Your task to perform on an android device: Go to ESPN.com Image 0: 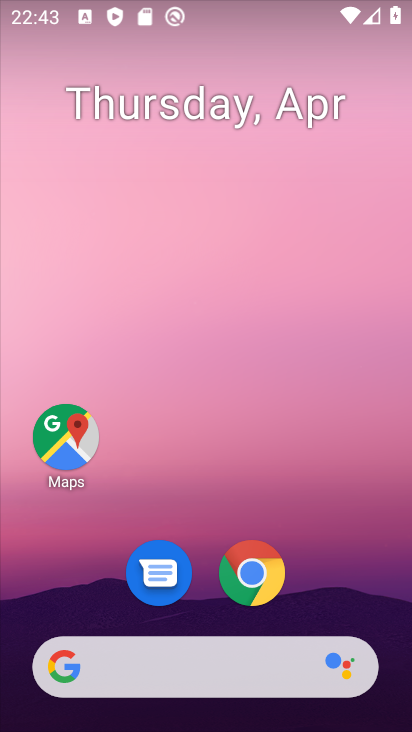
Step 0: click (255, 568)
Your task to perform on an android device: Go to ESPN.com Image 1: 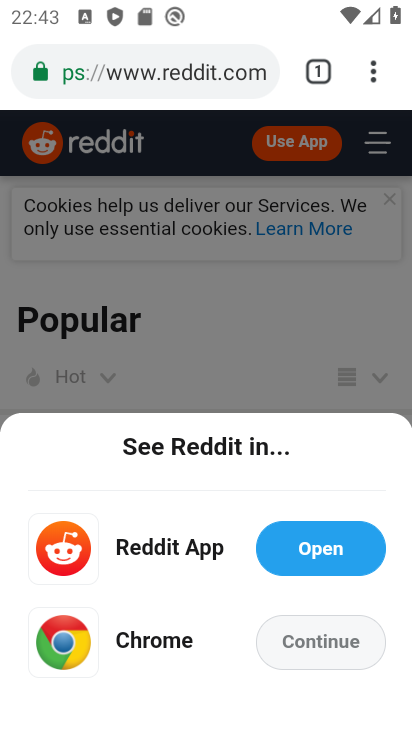
Step 1: click (381, 85)
Your task to perform on an android device: Go to ESPN.com Image 2: 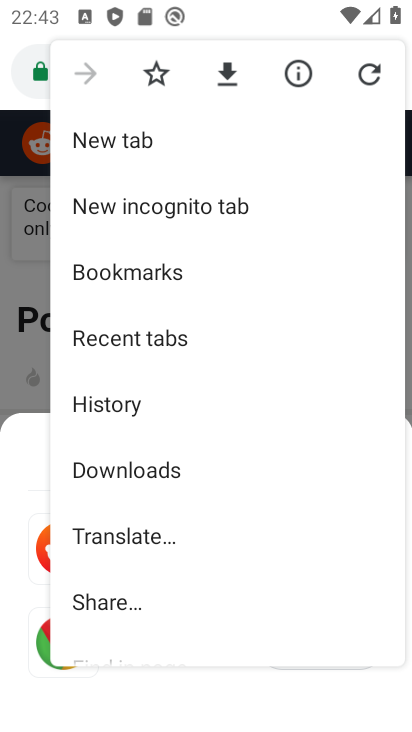
Step 2: click (75, 45)
Your task to perform on an android device: Go to ESPN.com Image 3: 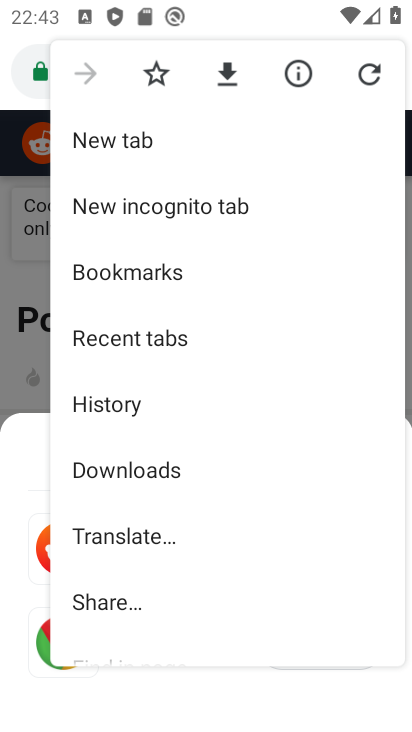
Step 3: click (89, 69)
Your task to perform on an android device: Go to ESPN.com Image 4: 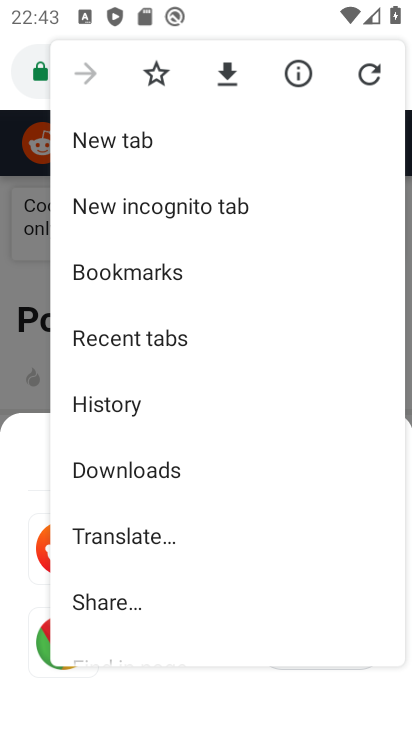
Step 4: press back button
Your task to perform on an android device: Go to ESPN.com Image 5: 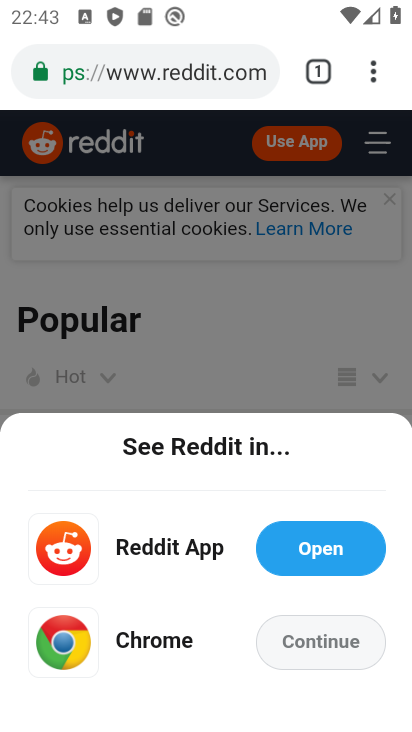
Step 5: click (314, 73)
Your task to perform on an android device: Go to ESPN.com Image 6: 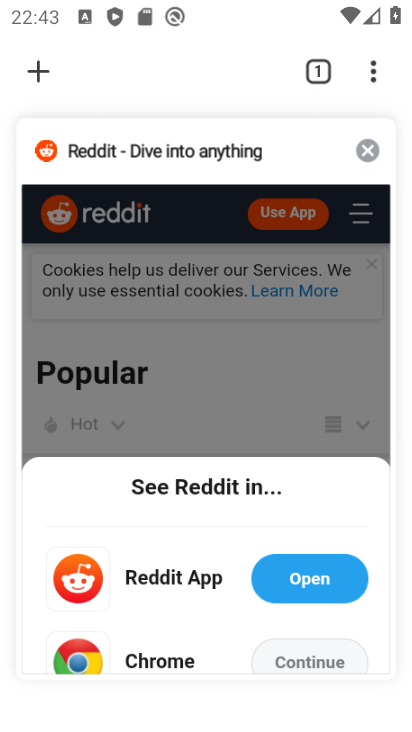
Step 6: click (23, 56)
Your task to perform on an android device: Go to ESPN.com Image 7: 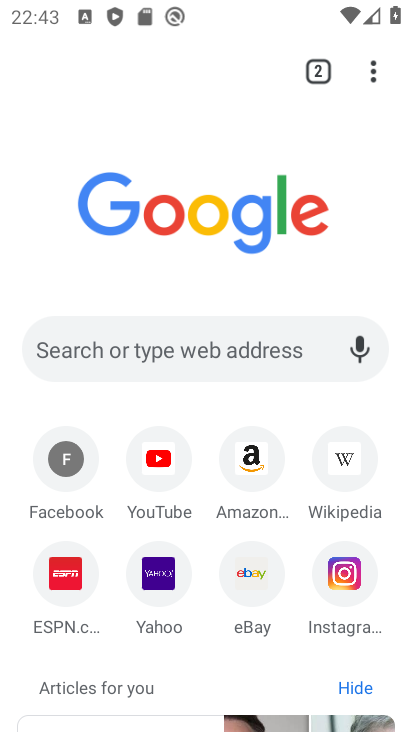
Step 7: click (81, 585)
Your task to perform on an android device: Go to ESPN.com Image 8: 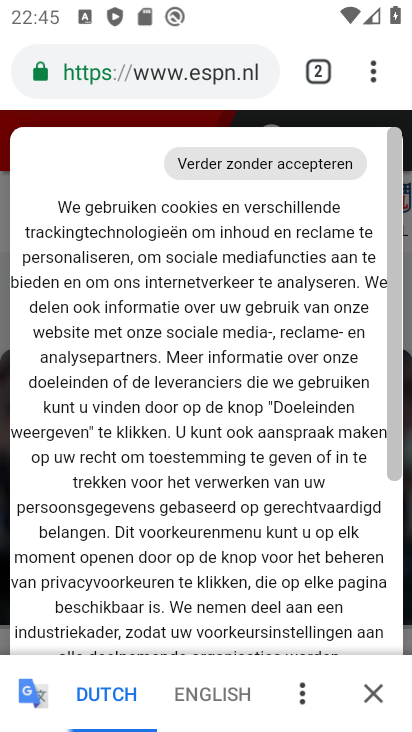
Step 8: task complete